Your task to perform on an android device: Go to network settings Image 0: 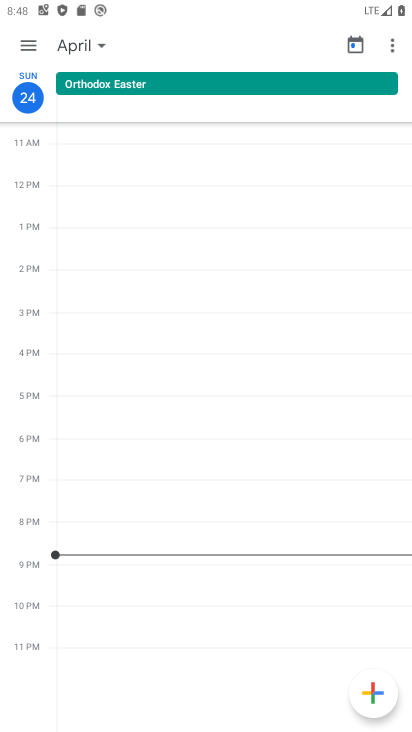
Step 0: press back button
Your task to perform on an android device: Go to network settings Image 1: 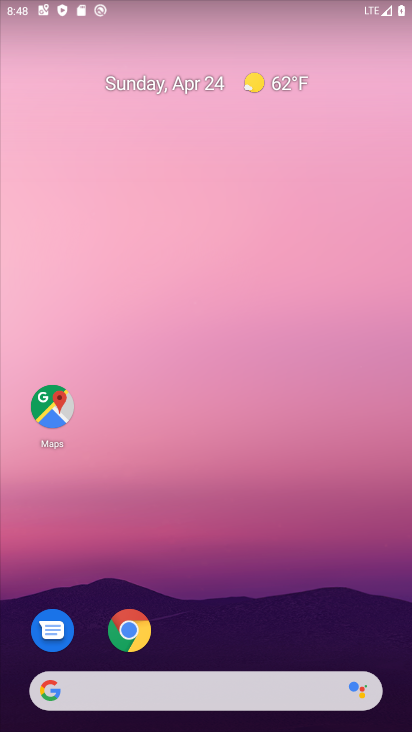
Step 1: drag from (203, 575) to (181, 61)
Your task to perform on an android device: Go to network settings Image 2: 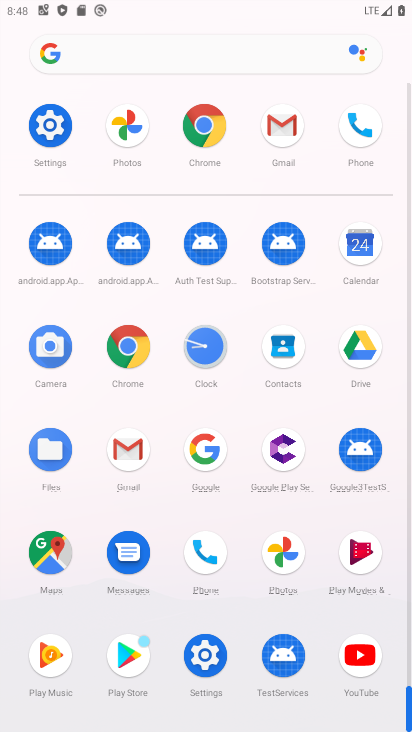
Step 2: drag from (11, 602) to (8, 367)
Your task to perform on an android device: Go to network settings Image 3: 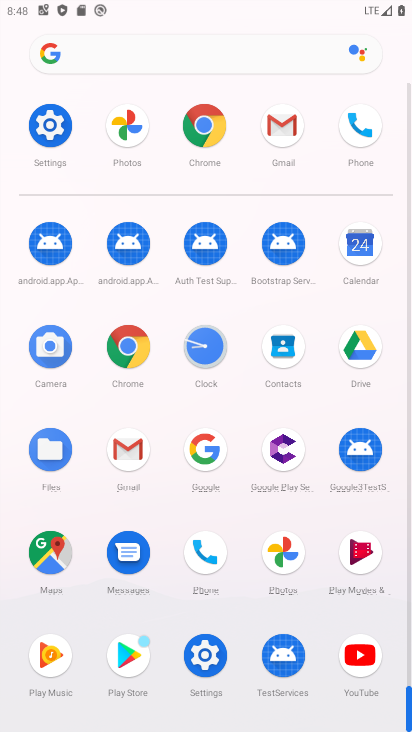
Step 3: click (199, 655)
Your task to perform on an android device: Go to network settings Image 4: 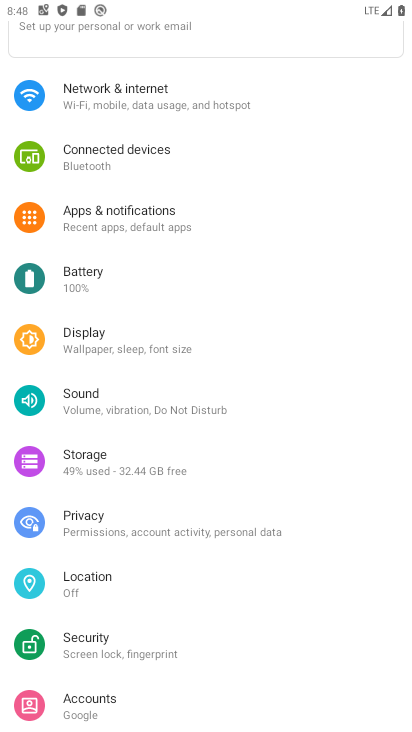
Step 4: click (156, 110)
Your task to perform on an android device: Go to network settings Image 5: 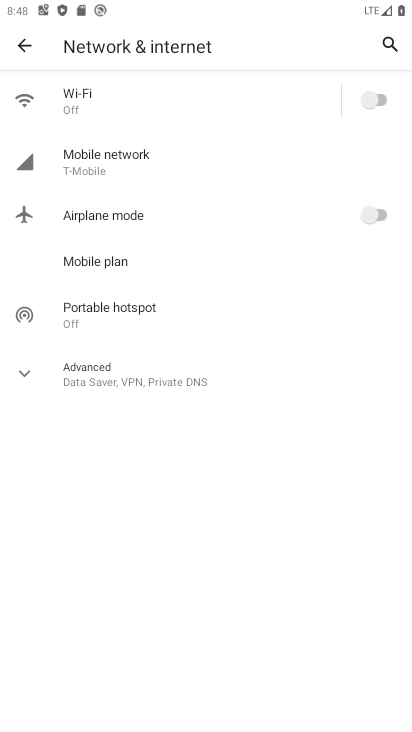
Step 5: task complete